Your task to perform on an android device: What is the recent news? Image 0: 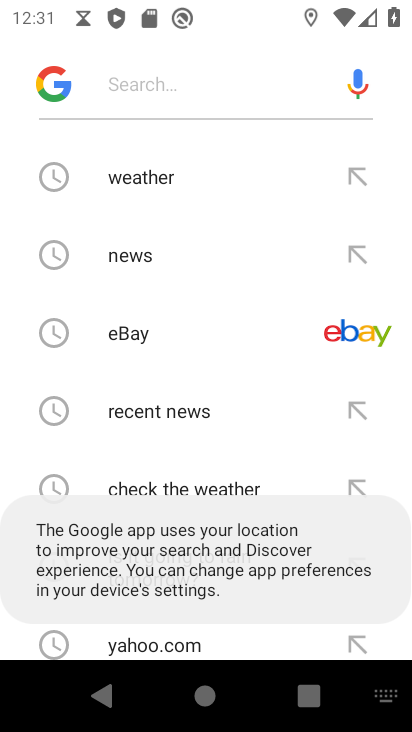
Step 0: press back button
Your task to perform on an android device: What is the recent news? Image 1: 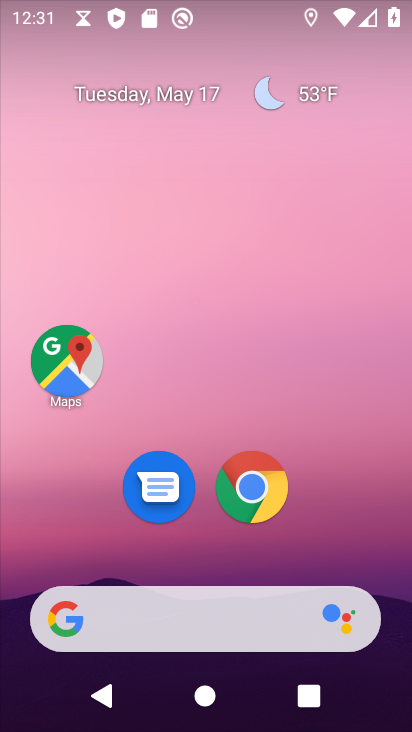
Step 1: click (254, 486)
Your task to perform on an android device: What is the recent news? Image 2: 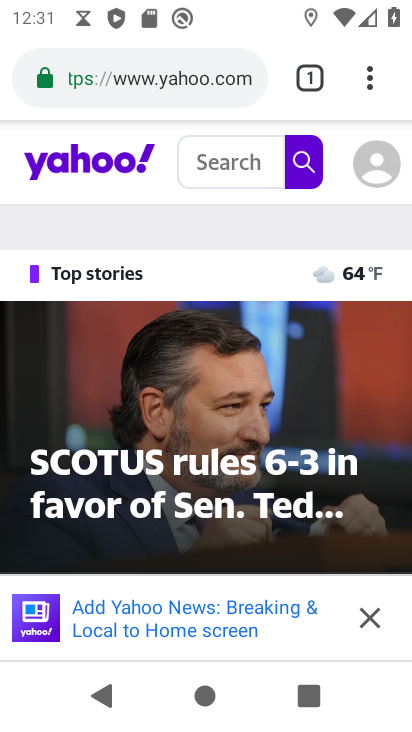
Step 2: click (175, 78)
Your task to perform on an android device: What is the recent news? Image 3: 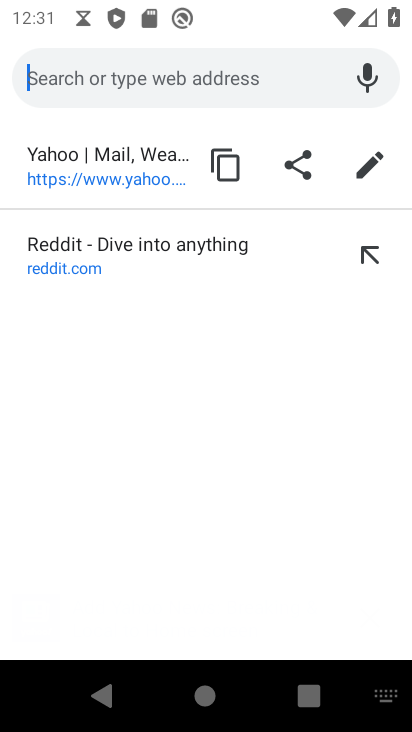
Step 3: type "What is the recent news?"
Your task to perform on an android device: What is the recent news? Image 4: 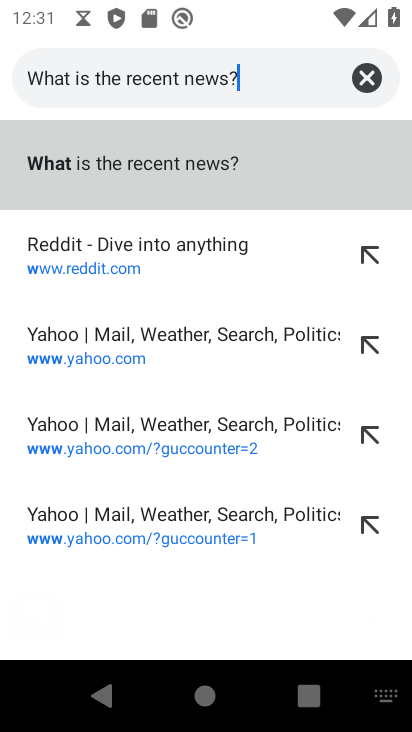
Step 4: type ""
Your task to perform on an android device: What is the recent news? Image 5: 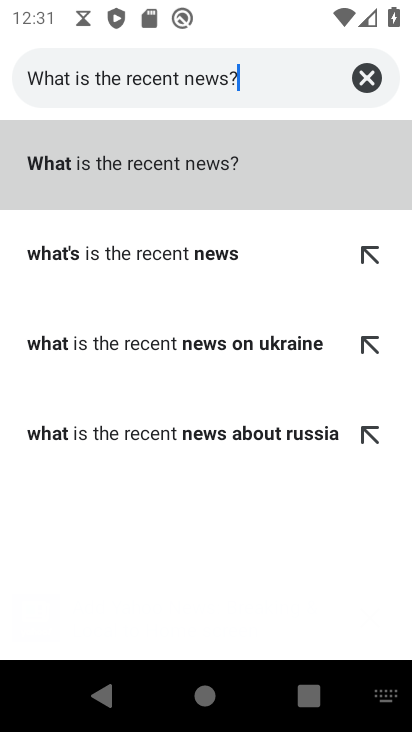
Step 5: click (219, 172)
Your task to perform on an android device: What is the recent news? Image 6: 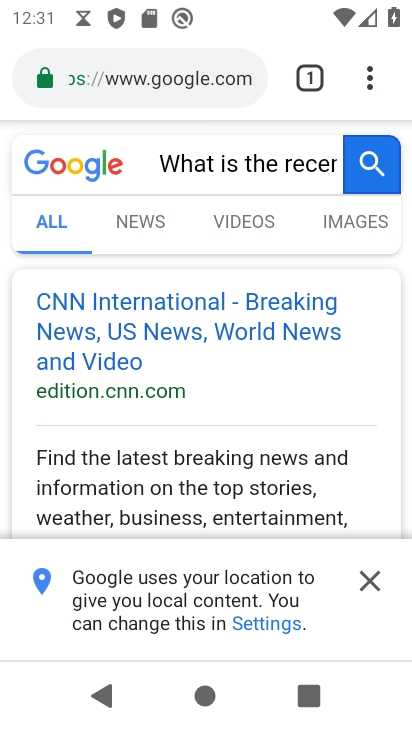
Step 6: click (127, 212)
Your task to perform on an android device: What is the recent news? Image 7: 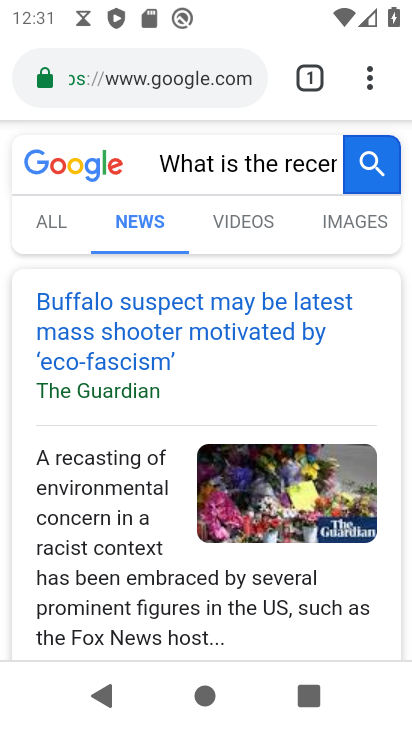
Step 7: task complete